Your task to perform on an android device: Search for pizza restaurants on Maps Image 0: 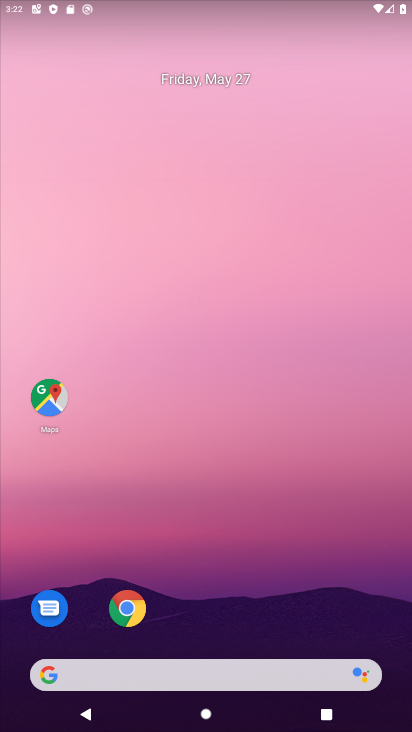
Step 0: click (51, 397)
Your task to perform on an android device: Search for pizza restaurants on Maps Image 1: 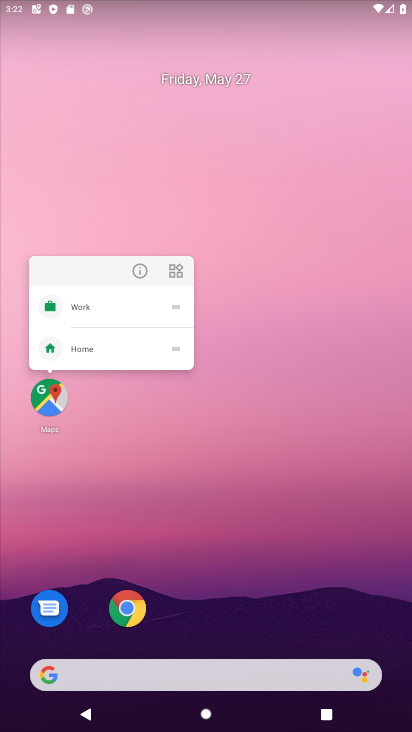
Step 1: click (37, 397)
Your task to perform on an android device: Search for pizza restaurants on Maps Image 2: 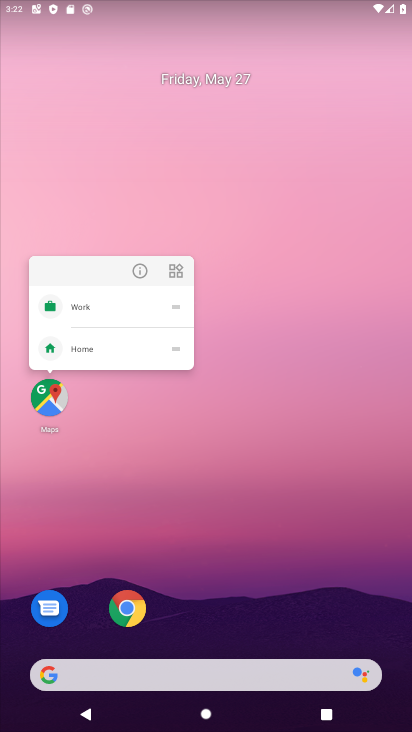
Step 2: click (51, 405)
Your task to perform on an android device: Search for pizza restaurants on Maps Image 3: 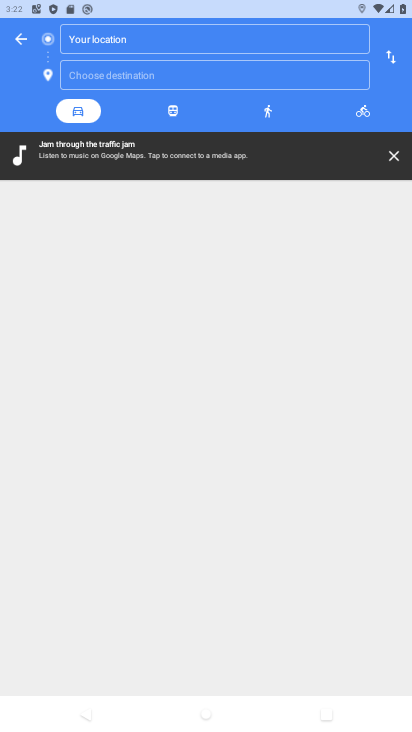
Step 3: click (390, 159)
Your task to perform on an android device: Search for pizza restaurants on Maps Image 4: 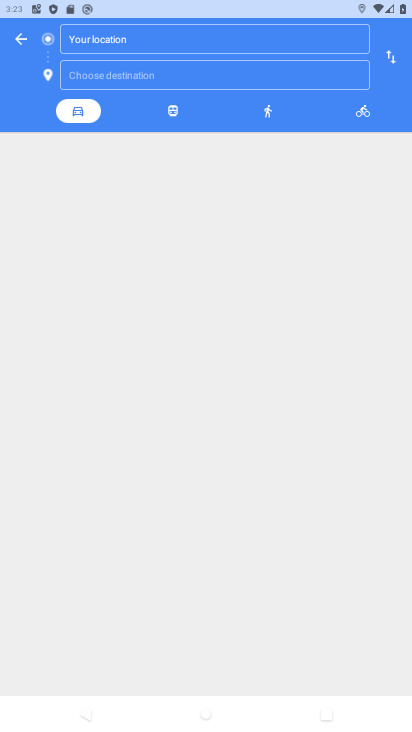
Step 4: click (26, 38)
Your task to perform on an android device: Search for pizza restaurants on Maps Image 5: 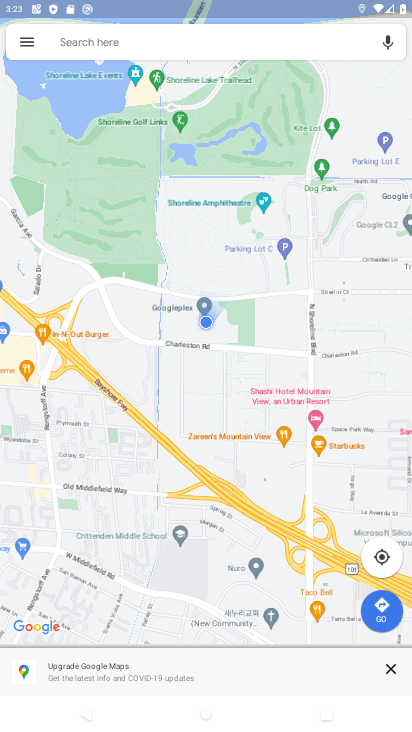
Step 5: click (183, 44)
Your task to perform on an android device: Search for pizza restaurants on Maps Image 6: 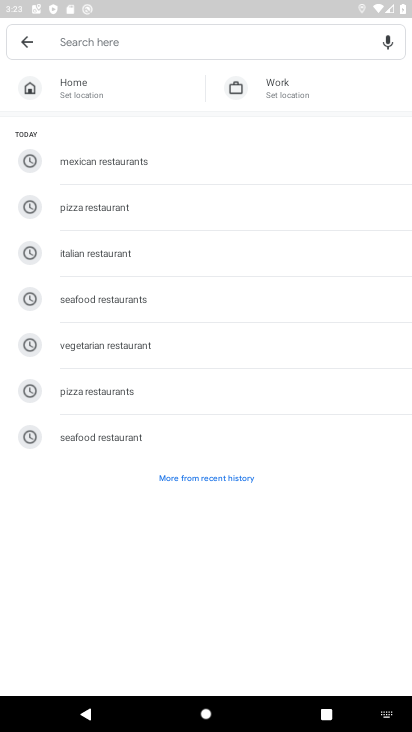
Step 6: click (99, 204)
Your task to perform on an android device: Search for pizza restaurants on Maps Image 7: 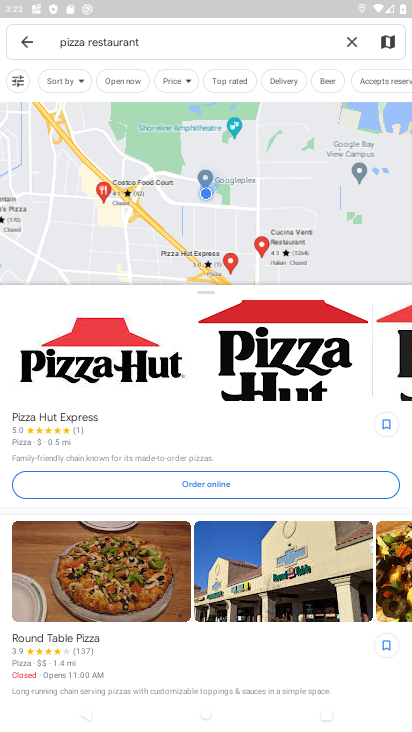
Step 7: task complete